Your task to perform on an android device: stop showing notifications on the lock screen Image 0: 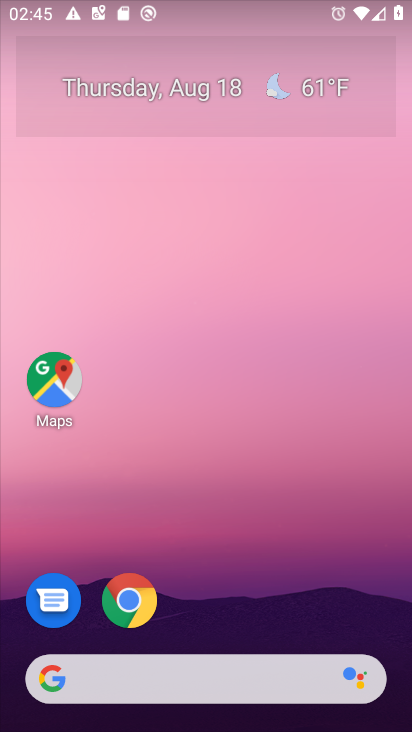
Step 0: drag from (253, 639) to (387, 19)
Your task to perform on an android device: stop showing notifications on the lock screen Image 1: 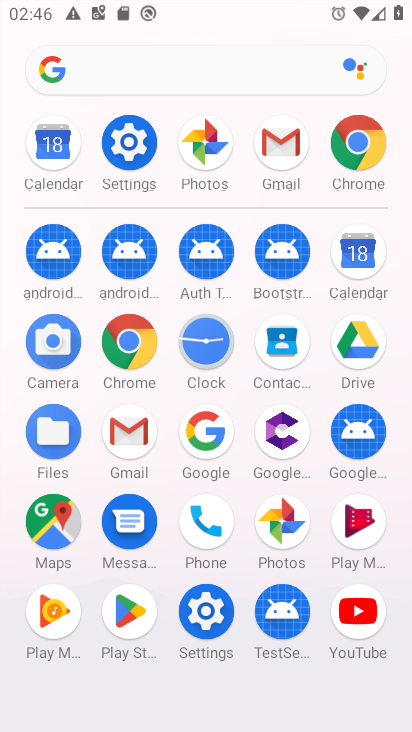
Step 1: click (132, 148)
Your task to perform on an android device: stop showing notifications on the lock screen Image 2: 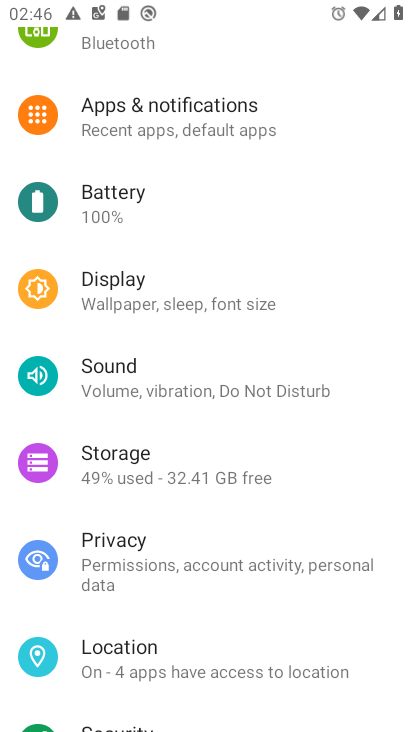
Step 2: drag from (284, 208) to (230, 641)
Your task to perform on an android device: stop showing notifications on the lock screen Image 3: 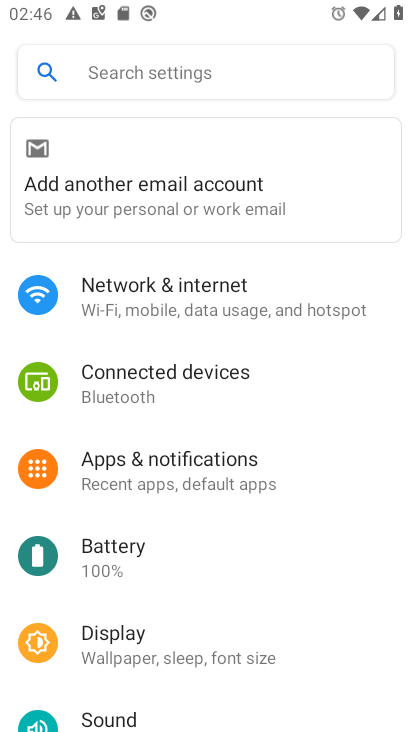
Step 3: click (150, 474)
Your task to perform on an android device: stop showing notifications on the lock screen Image 4: 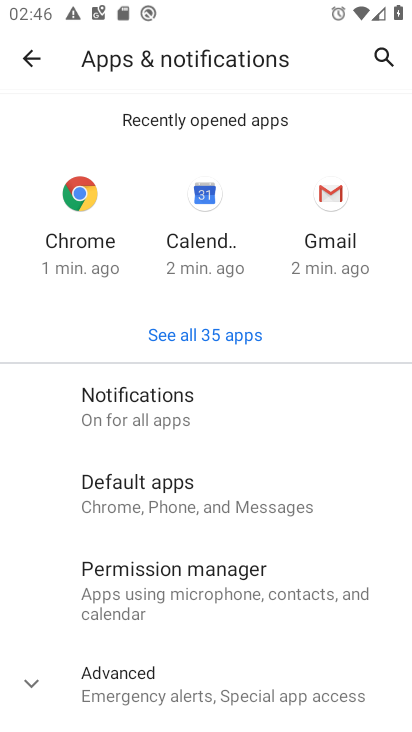
Step 4: click (120, 406)
Your task to perform on an android device: stop showing notifications on the lock screen Image 5: 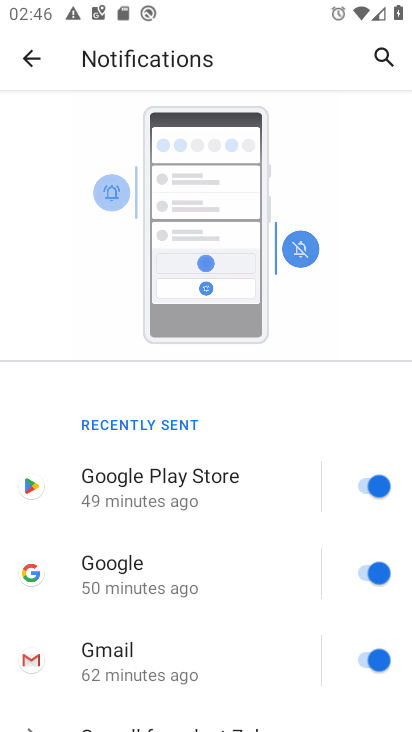
Step 5: drag from (291, 552) to (310, 43)
Your task to perform on an android device: stop showing notifications on the lock screen Image 6: 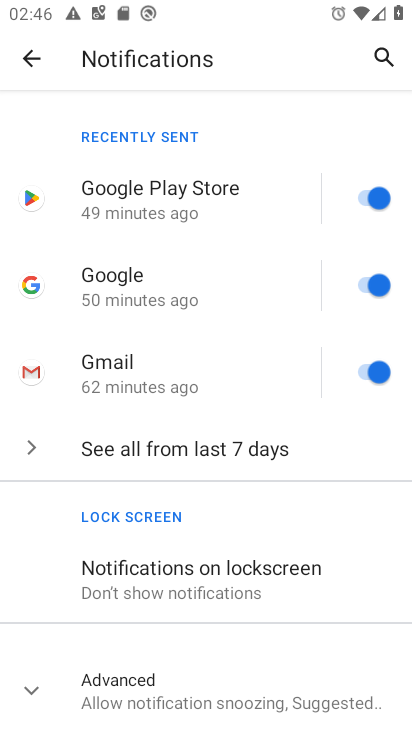
Step 6: click (145, 575)
Your task to perform on an android device: stop showing notifications on the lock screen Image 7: 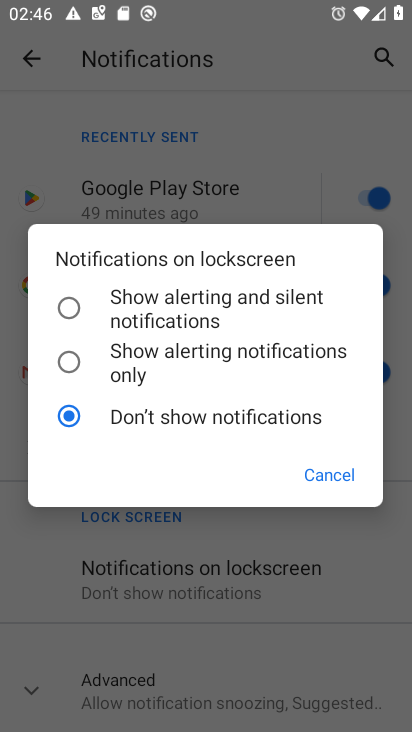
Step 7: task complete